Your task to perform on an android device: What's on my calendar tomorrow? Image 0: 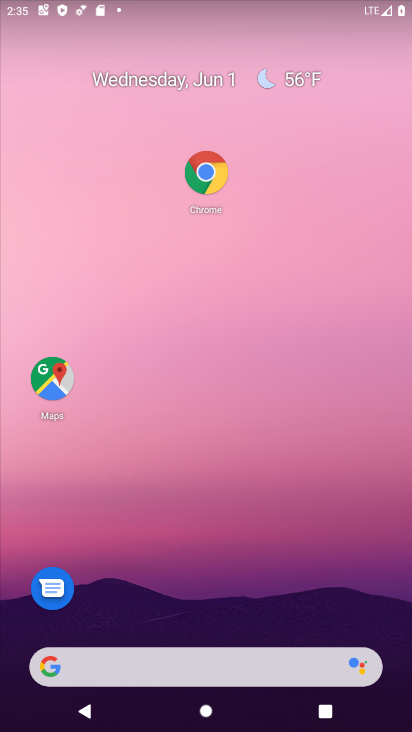
Step 0: drag from (213, 586) to (192, 106)
Your task to perform on an android device: What's on my calendar tomorrow? Image 1: 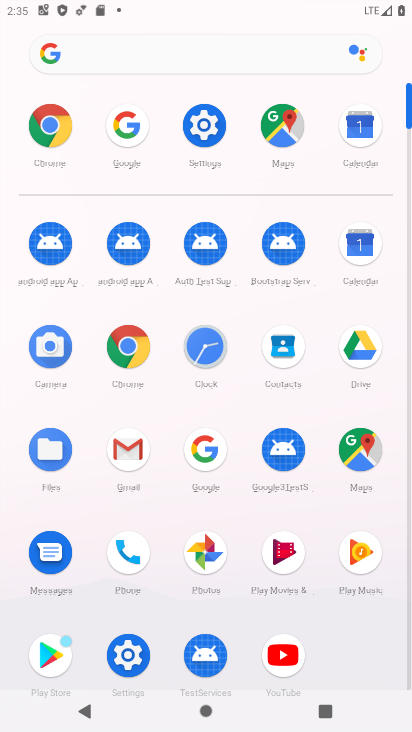
Step 1: click (354, 246)
Your task to perform on an android device: What's on my calendar tomorrow? Image 2: 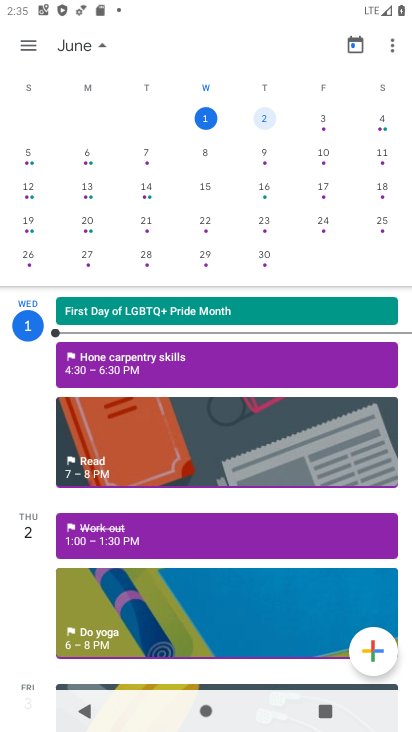
Step 2: click (259, 123)
Your task to perform on an android device: What's on my calendar tomorrow? Image 3: 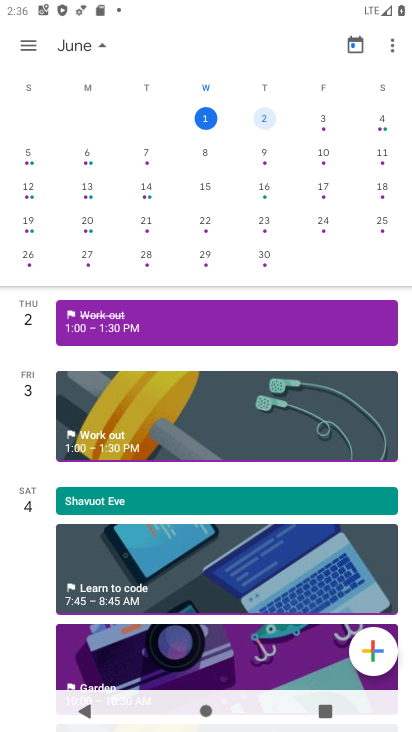
Step 3: task complete